Your task to perform on an android device: Go to location settings Image 0: 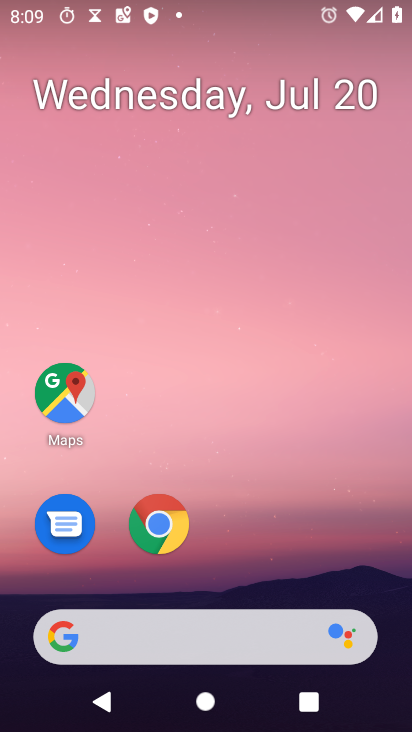
Step 0: drag from (148, 632) to (316, 115)
Your task to perform on an android device: Go to location settings Image 1: 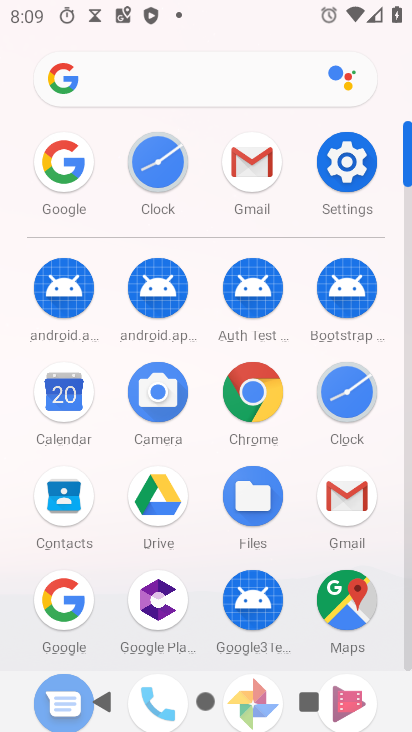
Step 1: click (341, 165)
Your task to perform on an android device: Go to location settings Image 2: 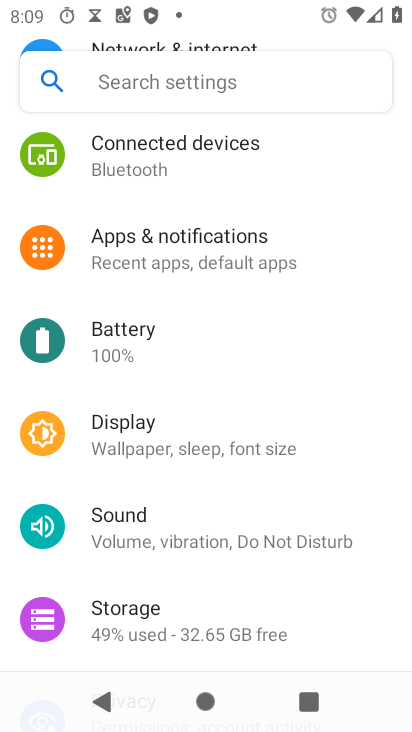
Step 2: drag from (315, 507) to (407, 132)
Your task to perform on an android device: Go to location settings Image 3: 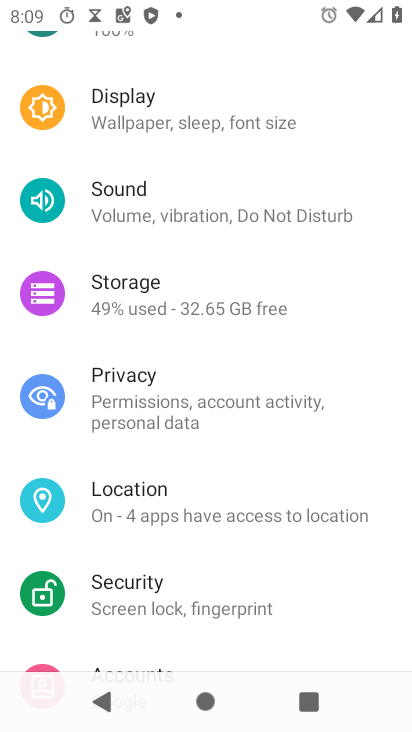
Step 3: click (166, 490)
Your task to perform on an android device: Go to location settings Image 4: 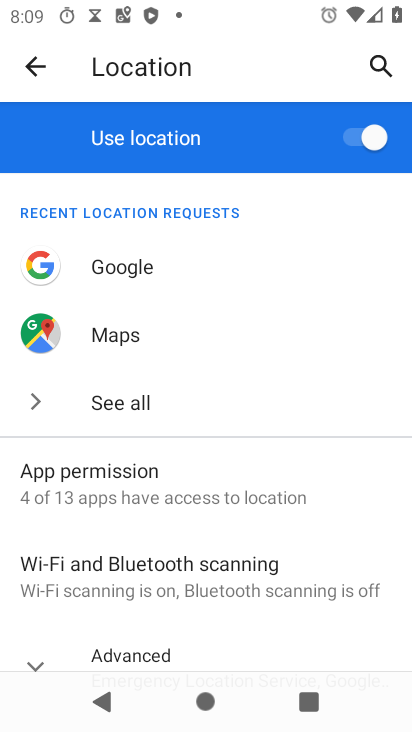
Step 4: task complete